Your task to perform on an android device: Turn on the flashlight Image 0: 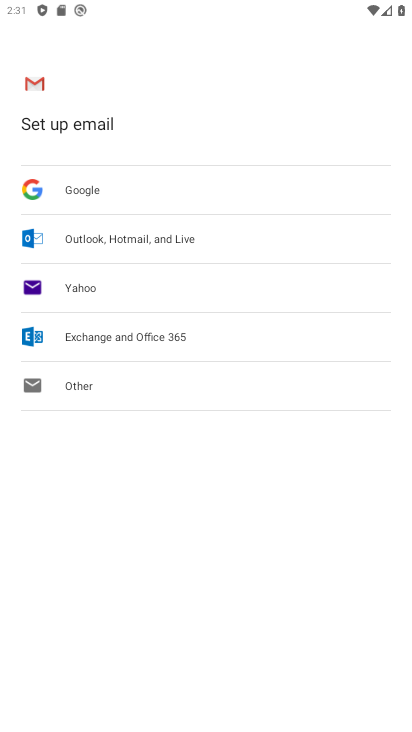
Step 0: press home button
Your task to perform on an android device: Turn on the flashlight Image 1: 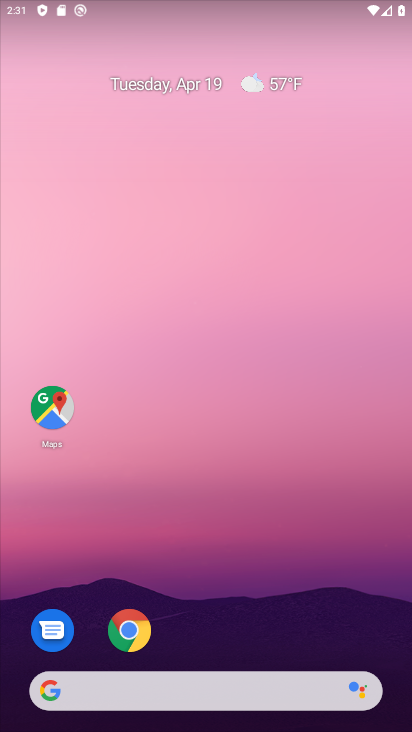
Step 1: drag from (204, 643) to (196, 199)
Your task to perform on an android device: Turn on the flashlight Image 2: 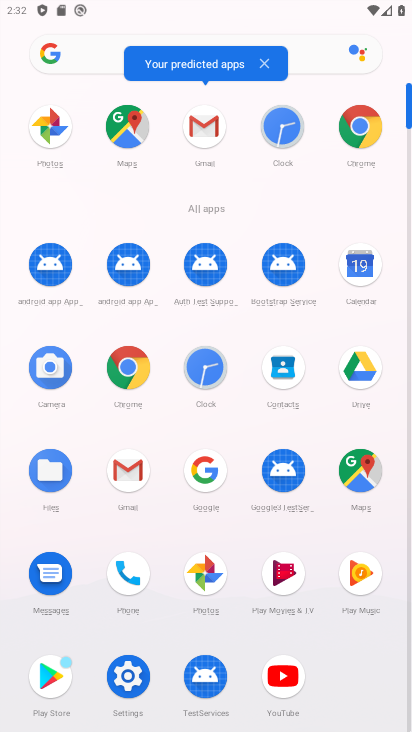
Step 2: drag from (165, 534) to (172, 230)
Your task to perform on an android device: Turn on the flashlight Image 3: 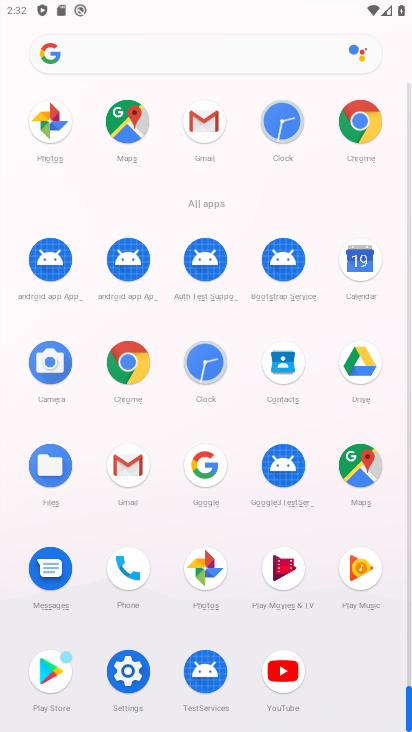
Step 3: click (126, 684)
Your task to perform on an android device: Turn on the flashlight Image 4: 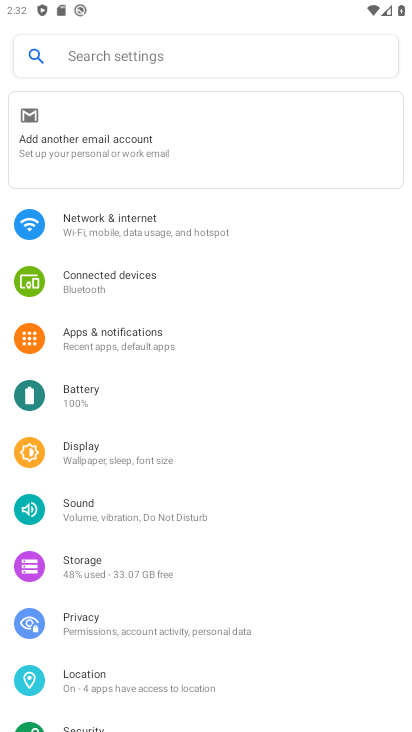
Step 4: task complete